Your task to perform on an android device: Open Reddit.com Image 0: 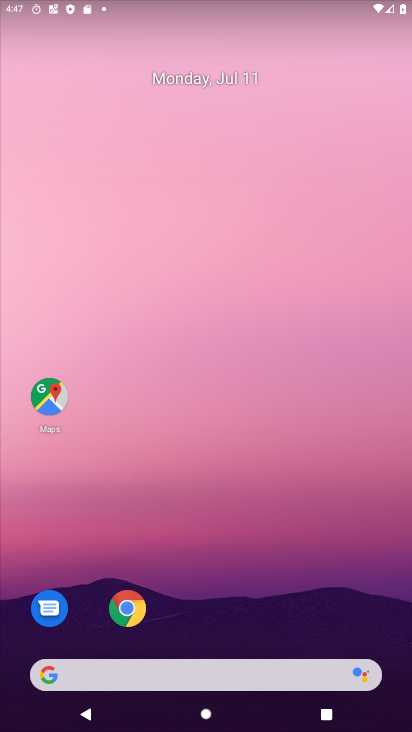
Step 0: drag from (258, 646) to (148, 90)
Your task to perform on an android device: Open Reddit.com Image 1: 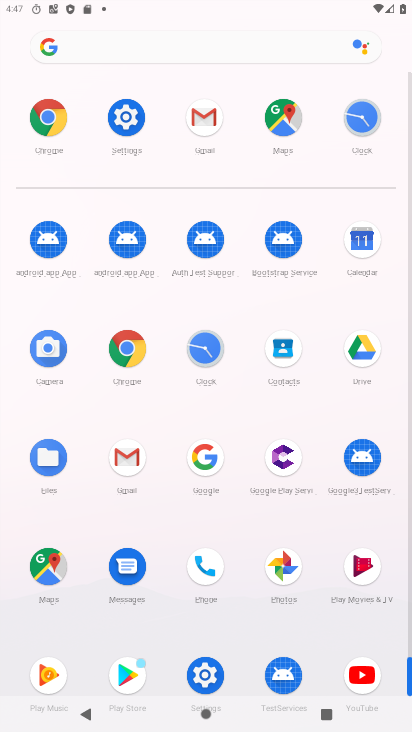
Step 1: click (48, 131)
Your task to perform on an android device: Open Reddit.com Image 2: 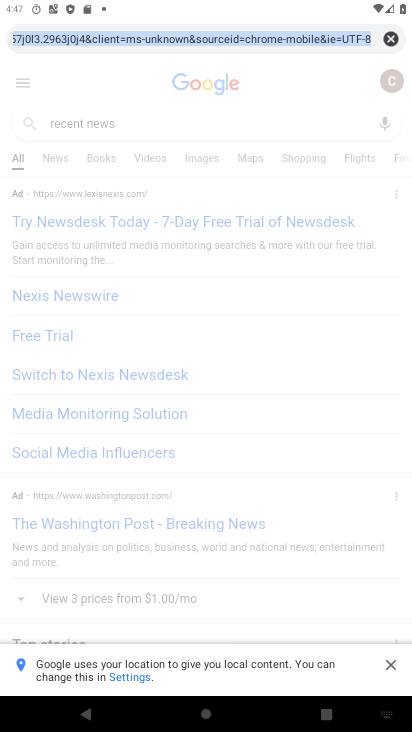
Step 2: click (64, 114)
Your task to perform on an android device: Open Reddit.com Image 3: 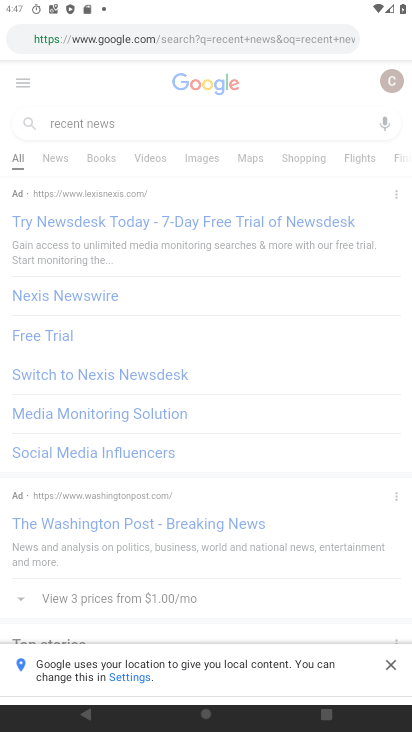
Step 3: click (64, 114)
Your task to perform on an android device: Open Reddit.com Image 4: 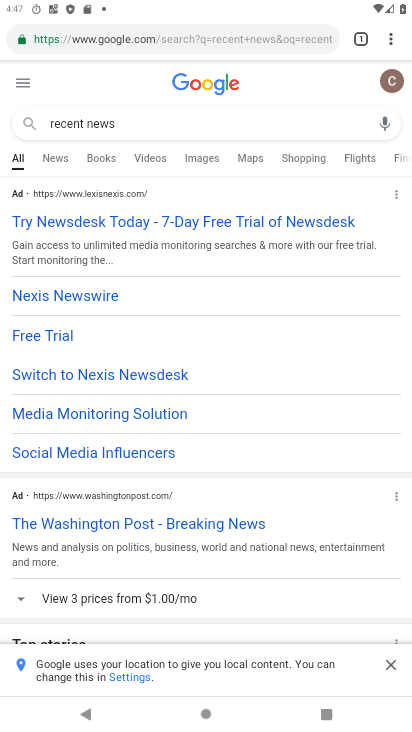
Step 4: click (64, 114)
Your task to perform on an android device: Open Reddit.com Image 5: 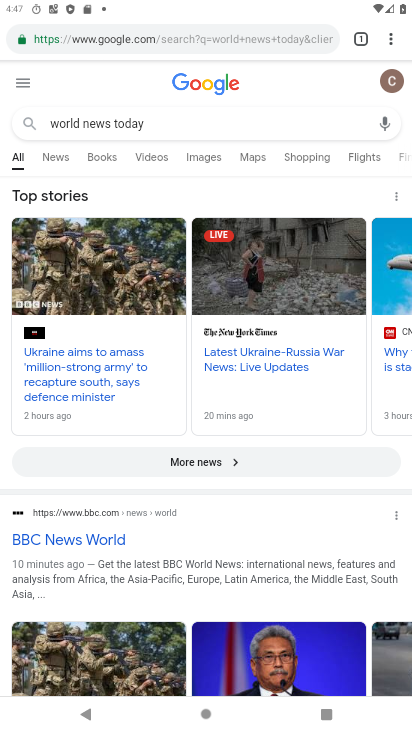
Step 5: click (154, 117)
Your task to perform on an android device: Open Reddit.com Image 6: 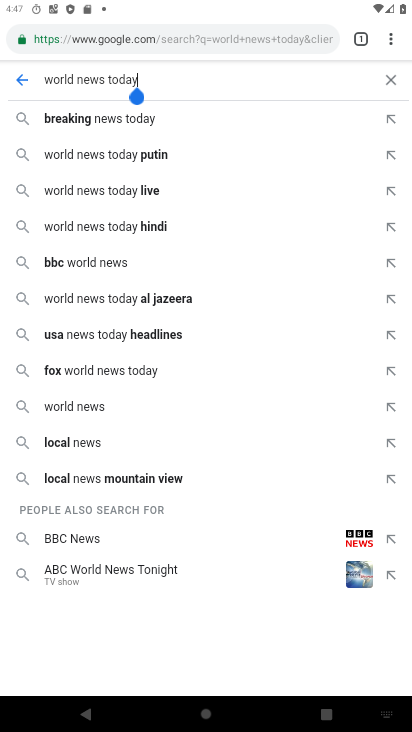
Step 6: click (385, 81)
Your task to perform on an android device: Open Reddit.com Image 7: 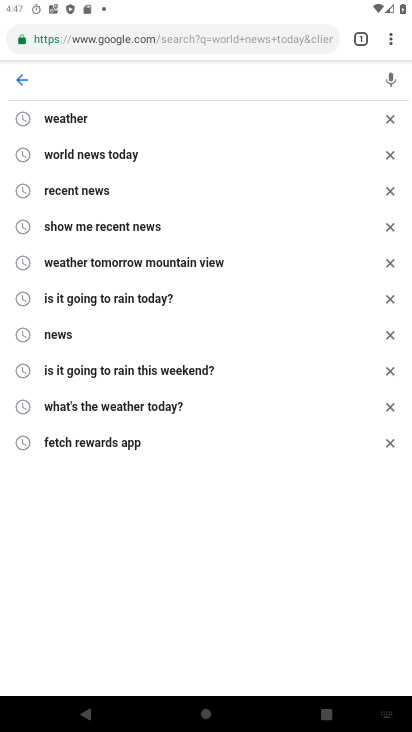
Step 7: type "reddit.com"
Your task to perform on an android device: Open Reddit.com Image 8: 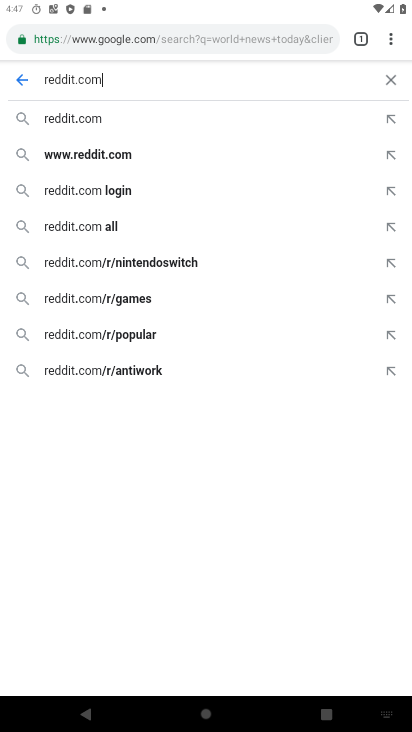
Step 8: click (61, 81)
Your task to perform on an android device: Open Reddit.com Image 9: 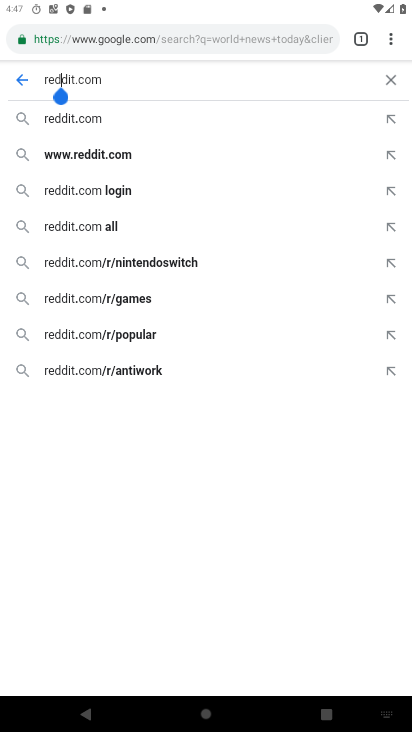
Step 9: click (61, 81)
Your task to perform on an android device: Open Reddit.com Image 10: 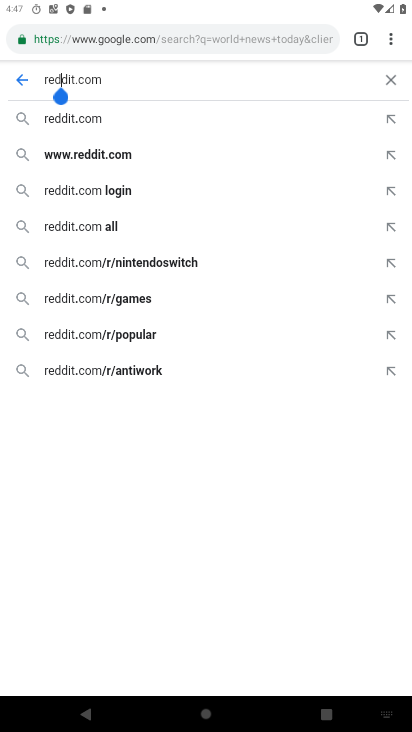
Step 10: click (99, 80)
Your task to perform on an android device: Open Reddit.com Image 11: 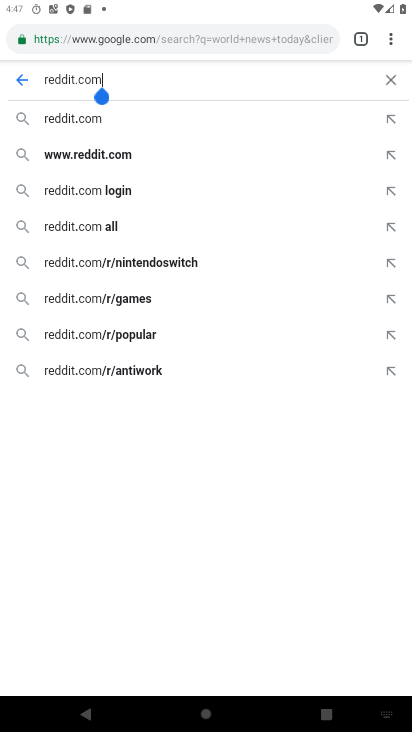
Step 11: click (99, 80)
Your task to perform on an android device: Open Reddit.com Image 12: 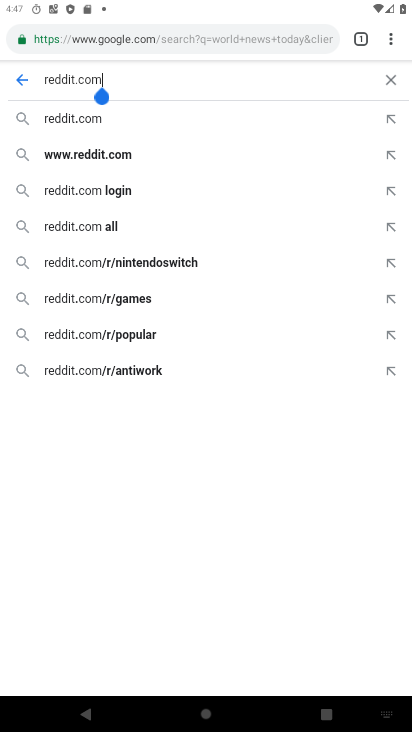
Step 12: click (99, 81)
Your task to perform on an android device: Open Reddit.com Image 13: 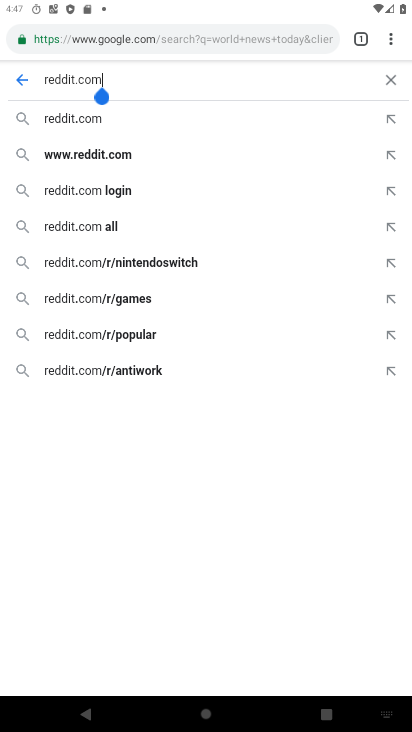
Step 13: task complete